Your task to perform on an android device: uninstall "Skype" Image 0: 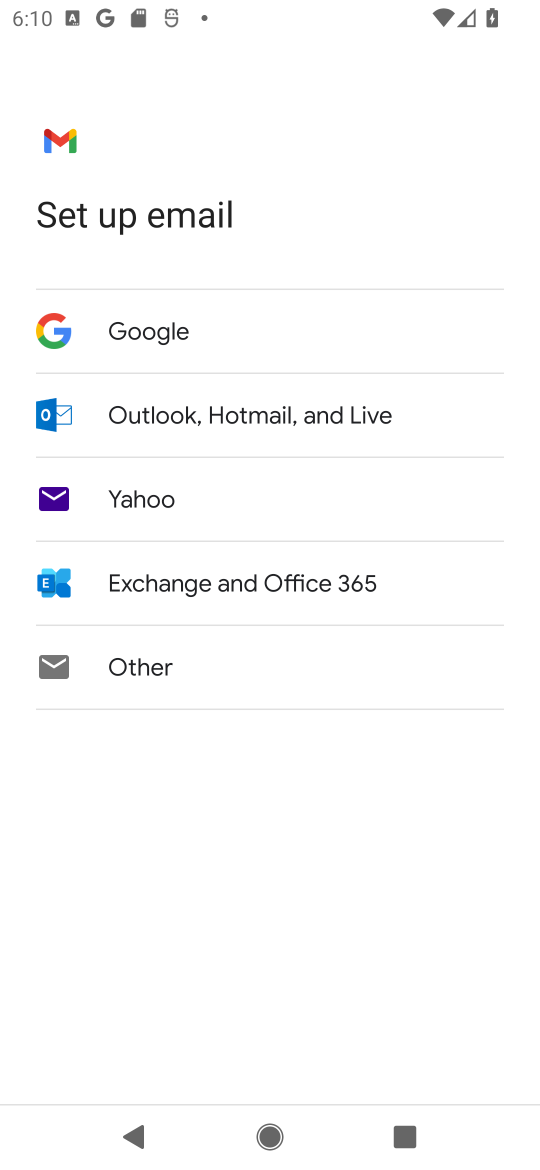
Step 0: press home button
Your task to perform on an android device: uninstall "Skype" Image 1: 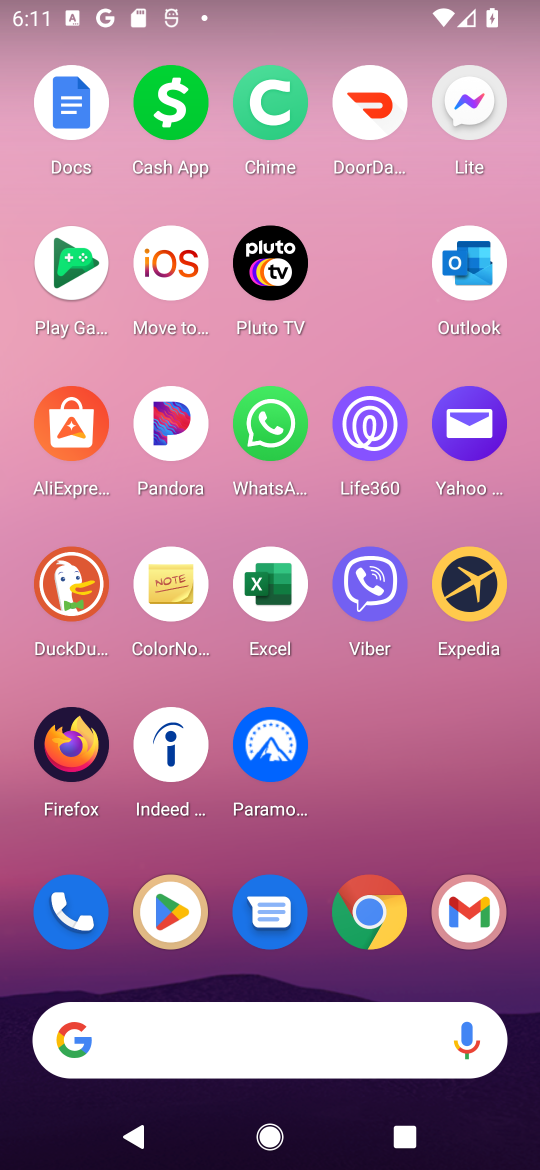
Step 1: click (188, 927)
Your task to perform on an android device: uninstall "Skype" Image 2: 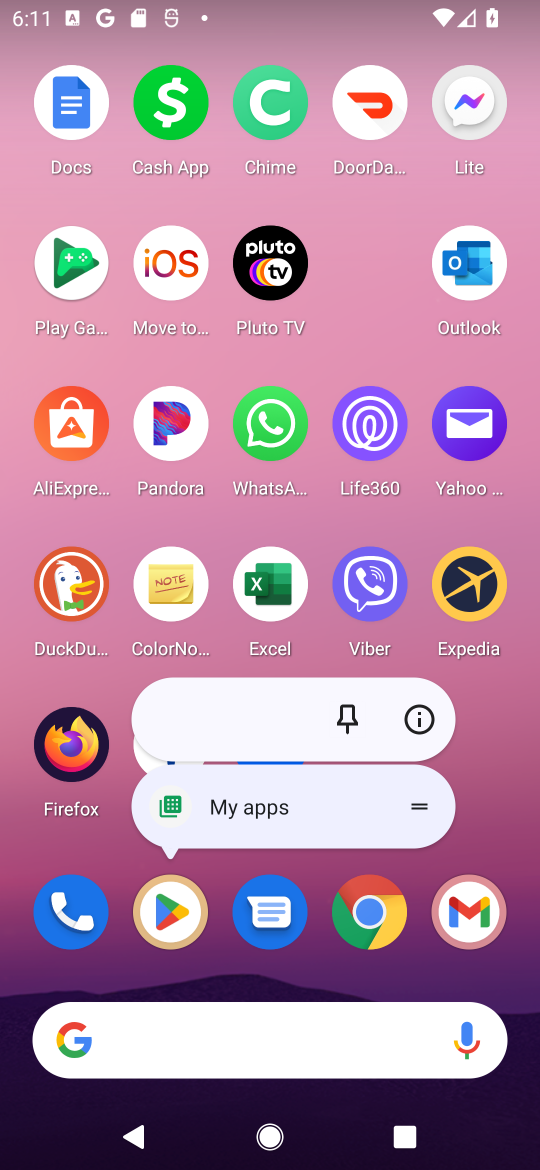
Step 2: click (180, 913)
Your task to perform on an android device: uninstall "Skype" Image 3: 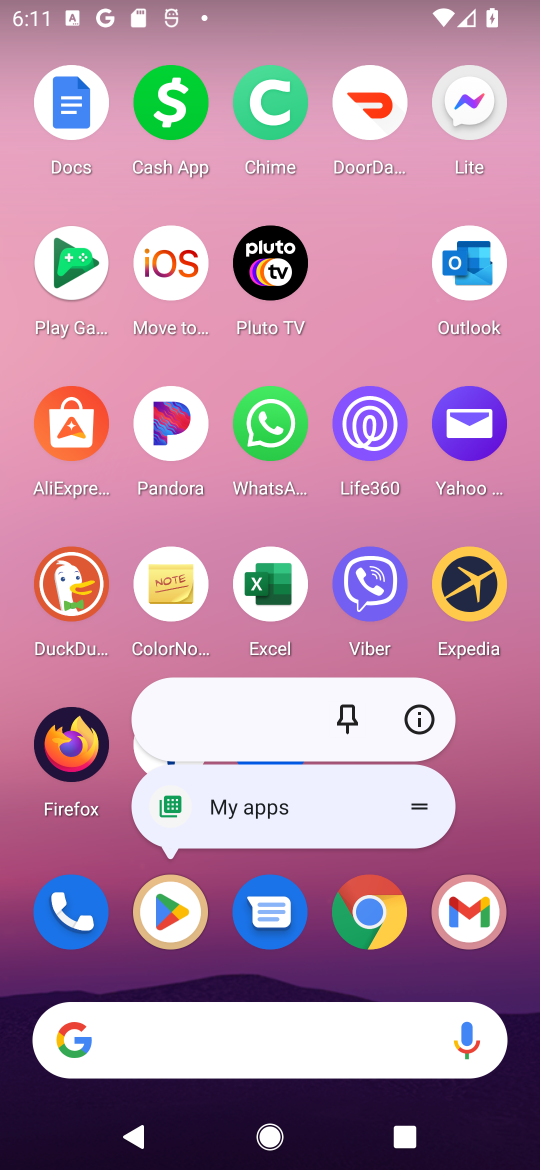
Step 3: click (180, 913)
Your task to perform on an android device: uninstall "Skype" Image 4: 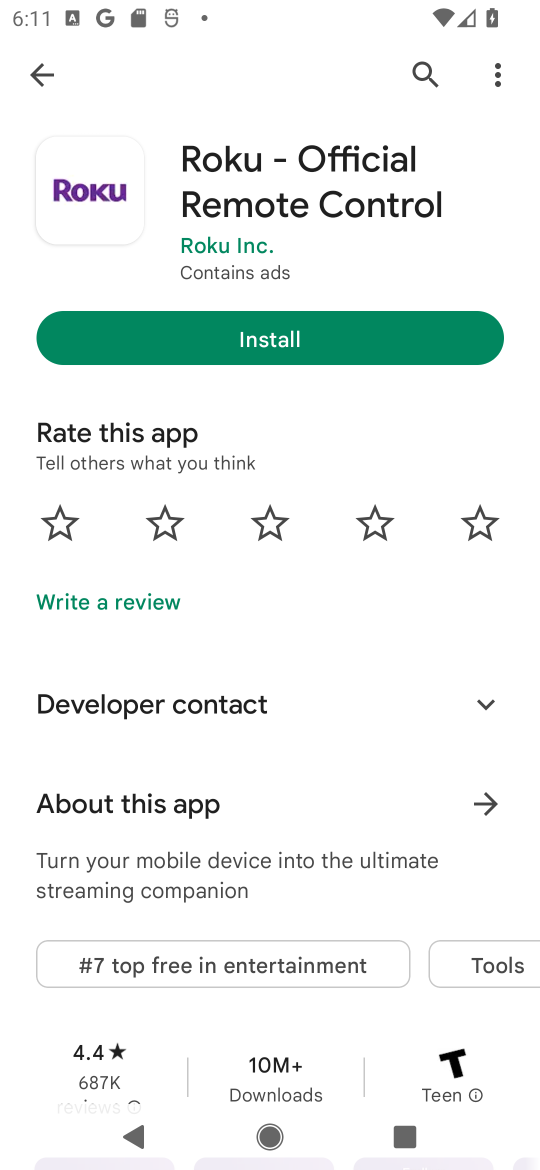
Step 4: click (30, 63)
Your task to perform on an android device: uninstall "Skype" Image 5: 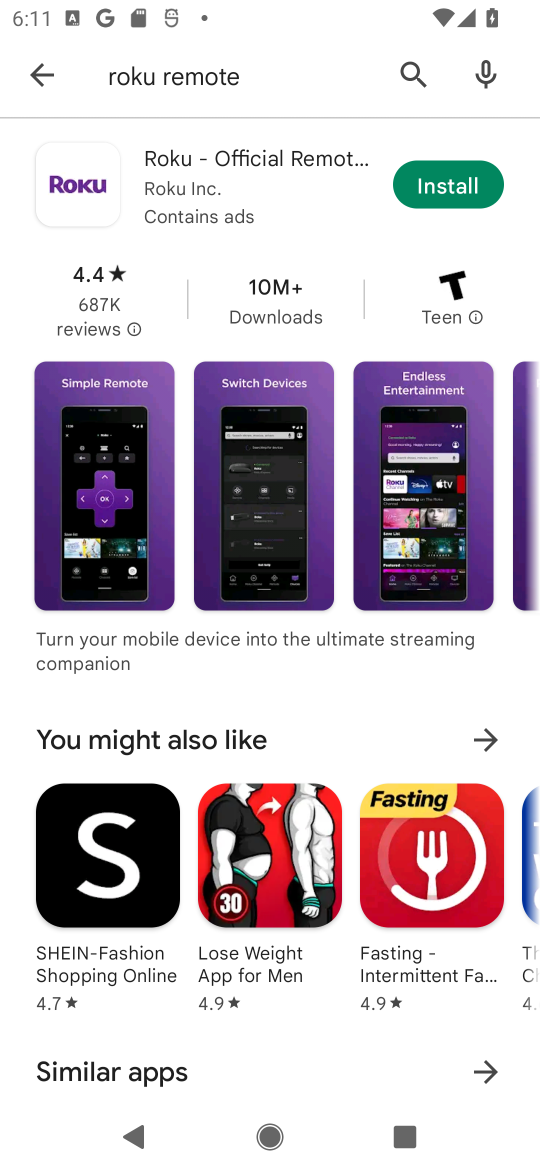
Step 5: click (35, 70)
Your task to perform on an android device: uninstall "Skype" Image 6: 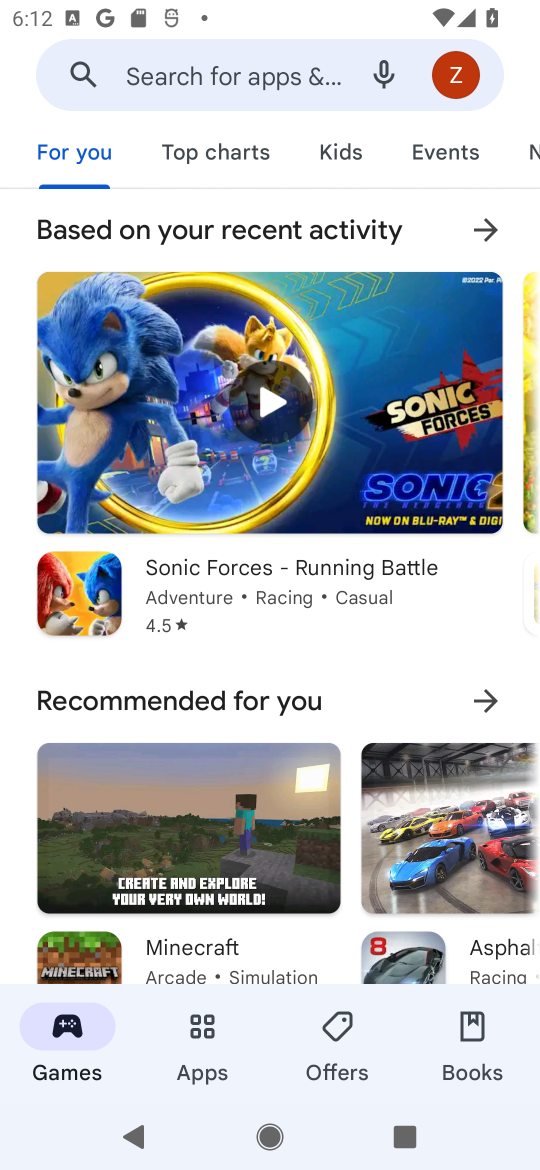
Step 6: click (261, 67)
Your task to perform on an android device: uninstall "Skype" Image 7: 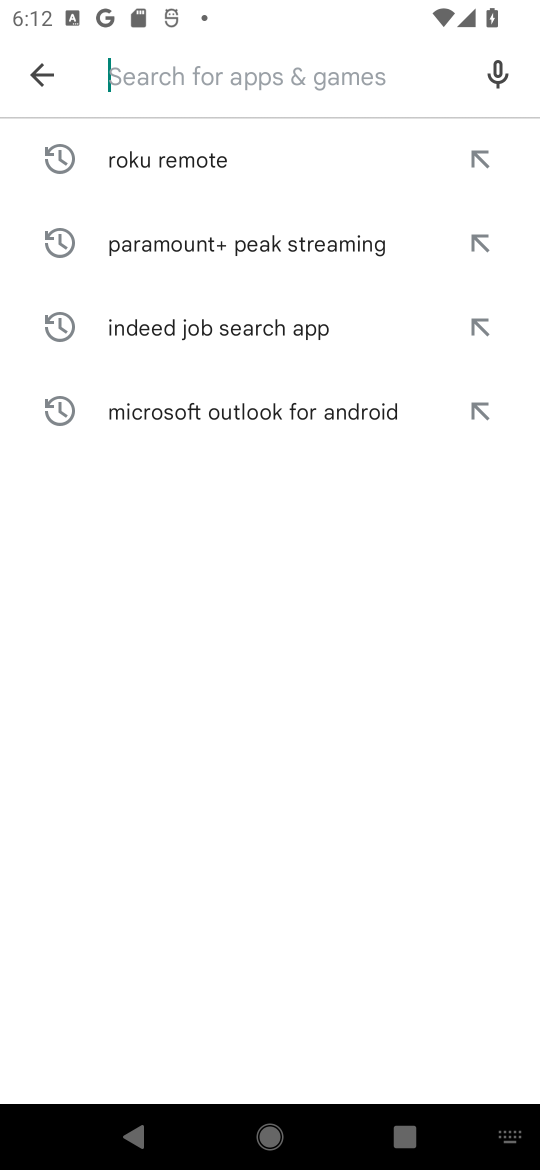
Step 7: type "Skype "
Your task to perform on an android device: uninstall "Skype" Image 8: 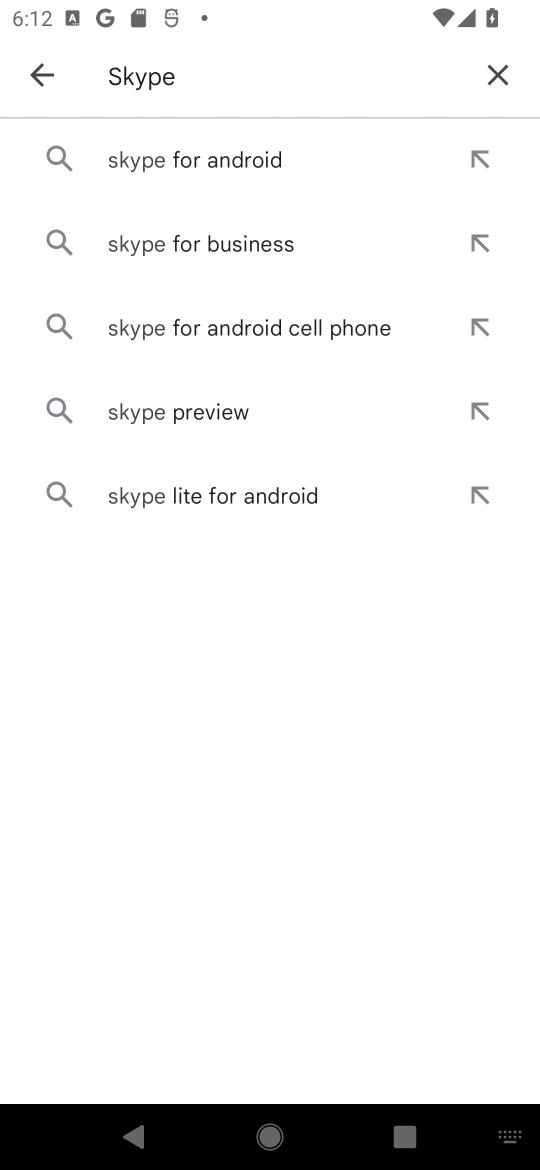
Step 8: click (175, 150)
Your task to perform on an android device: uninstall "Skype" Image 9: 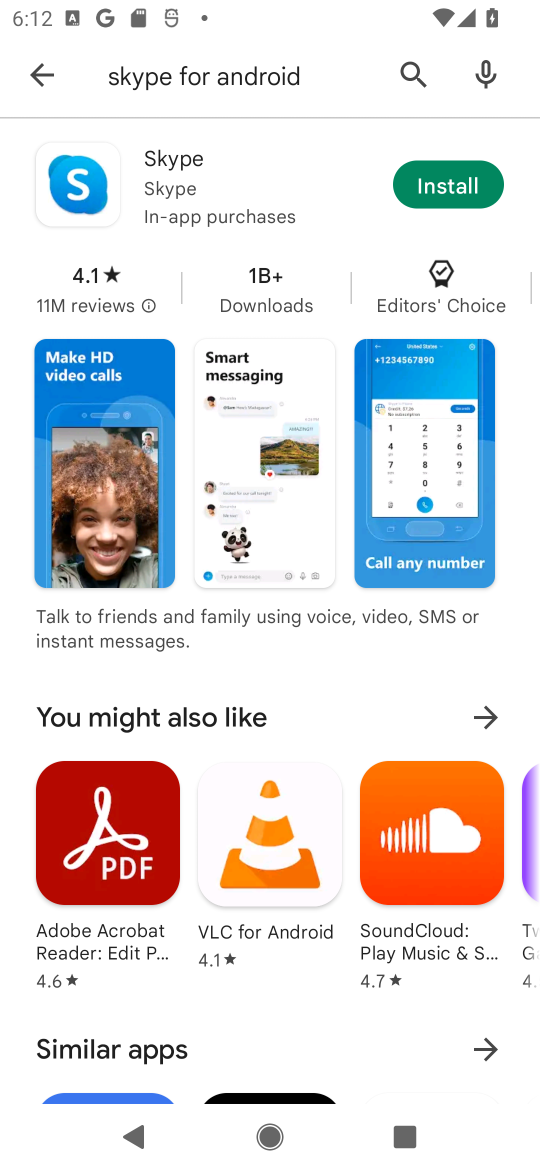
Step 9: click (123, 158)
Your task to perform on an android device: uninstall "Skype" Image 10: 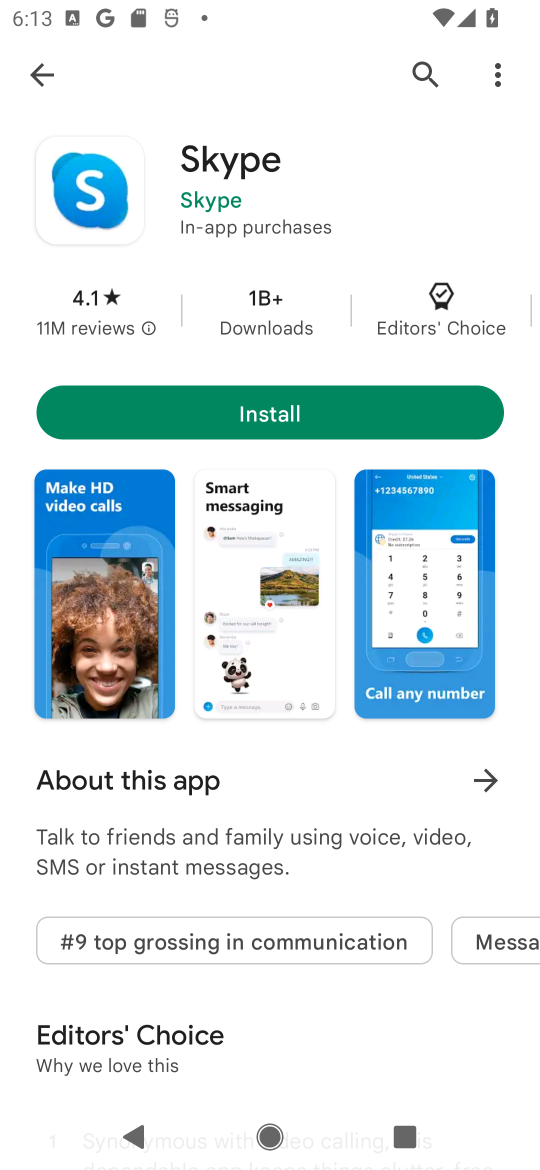
Step 10: task complete